Your task to perform on an android device: toggle priority inbox in the gmail app Image 0: 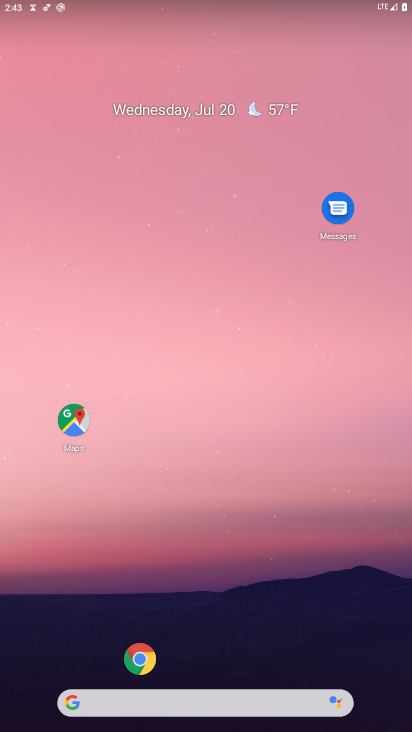
Step 0: drag from (9, 684) to (257, 0)
Your task to perform on an android device: toggle priority inbox in the gmail app Image 1: 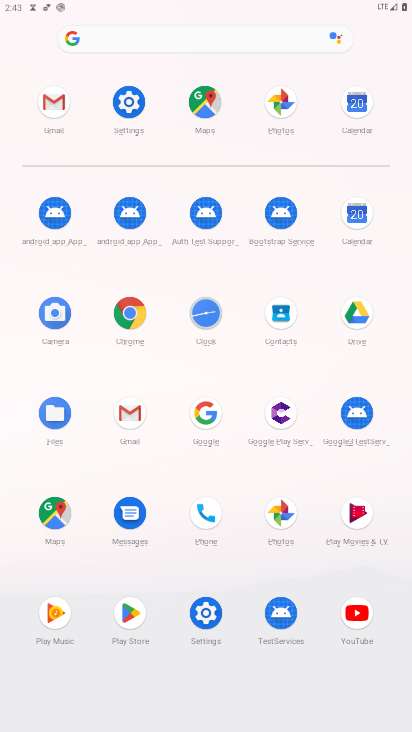
Step 1: click (120, 419)
Your task to perform on an android device: toggle priority inbox in the gmail app Image 2: 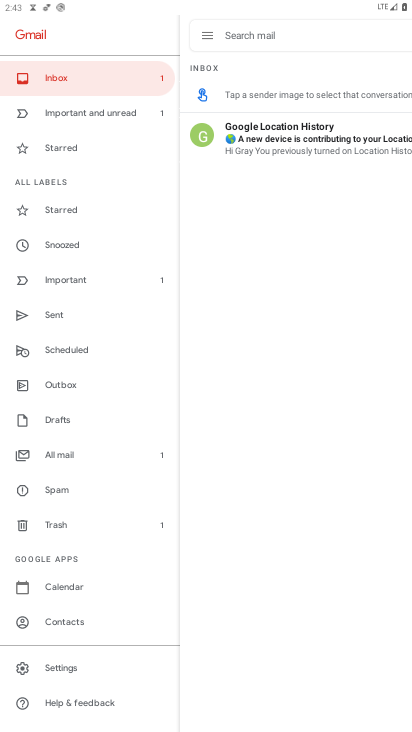
Step 2: click (61, 651)
Your task to perform on an android device: toggle priority inbox in the gmail app Image 3: 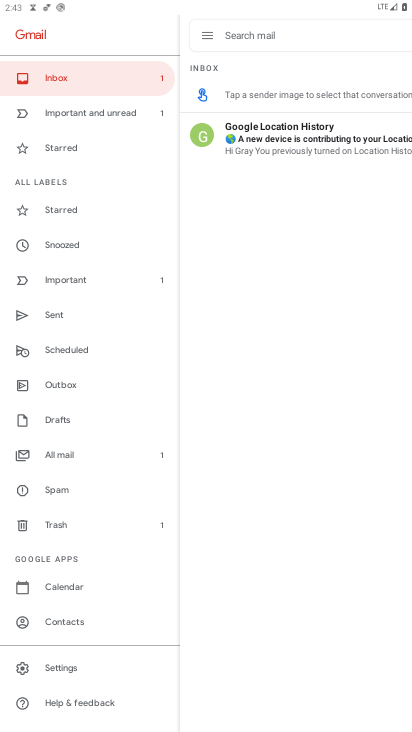
Step 3: click (61, 658)
Your task to perform on an android device: toggle priority inbox in the gmail app Image 4: 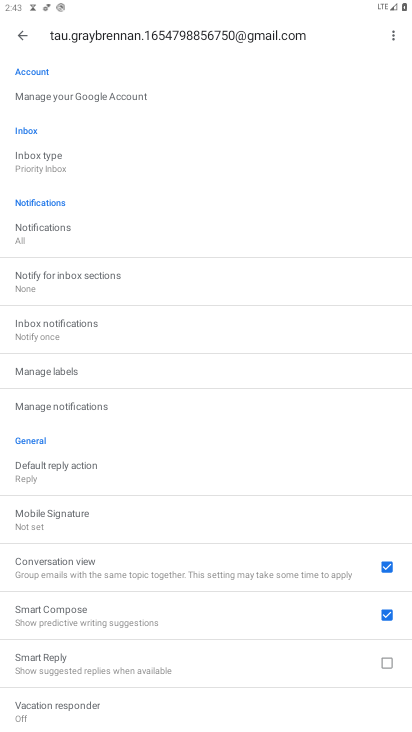
Step 4: task complete